Your task to perform on an android device: Go to CNN.com Image 0: 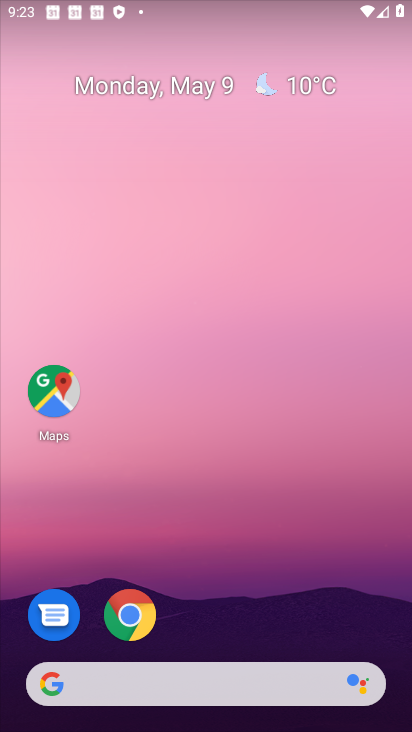
Step 0: click (240, 685)
Your task to perform on an android device: Go to CNN.com Image 1: 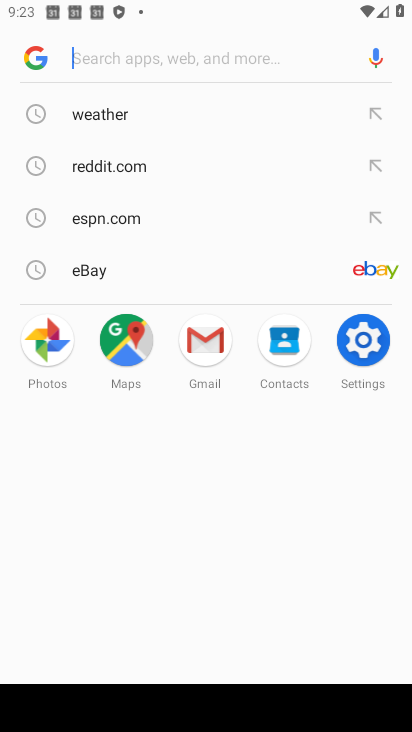
Step 1: type "CNN.com"
Your task to perform on an android device: Go to CNN.com Image 2: 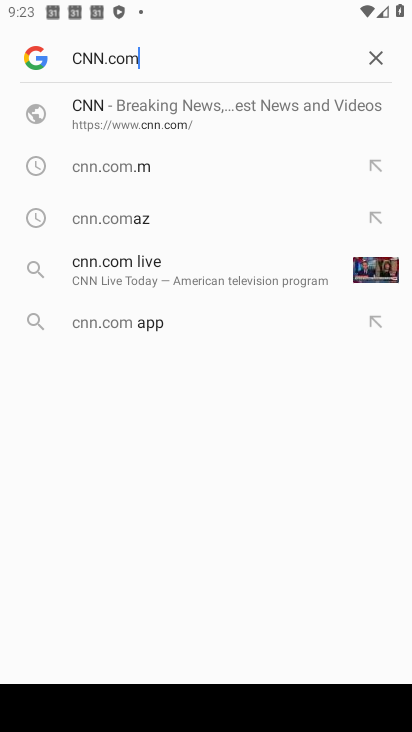
Step 2: click (186, 108)
Your task to perform on an android device: Go to CNN.com Image 3: 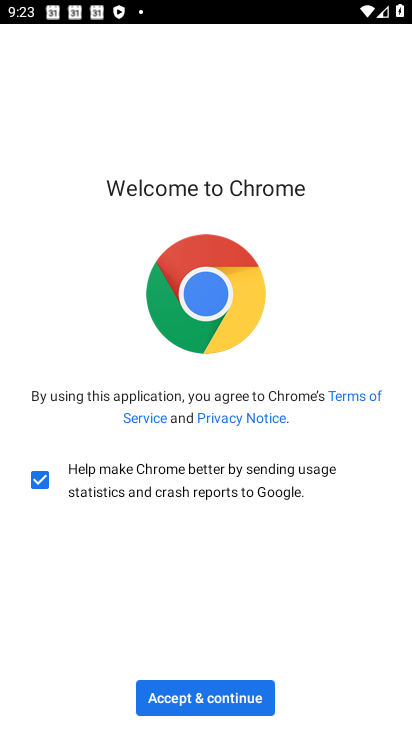
Step 3: click (192, 701)
Your task to perform on an android device: Go to CNN.com Image 4: 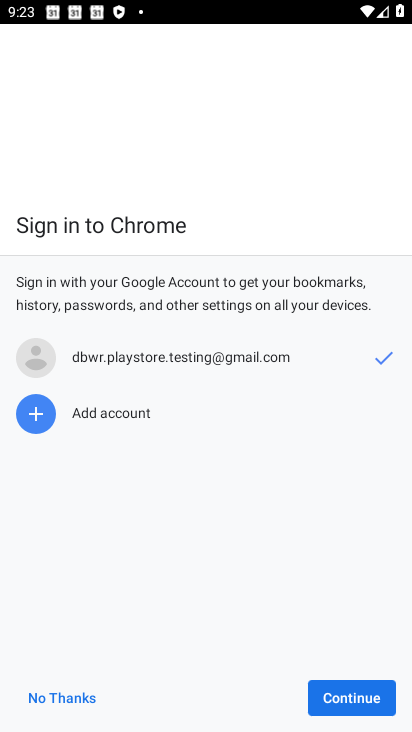
Step 4: click (327, 704)
Your task to perform on an android device: Go to CNN.com Image 5: 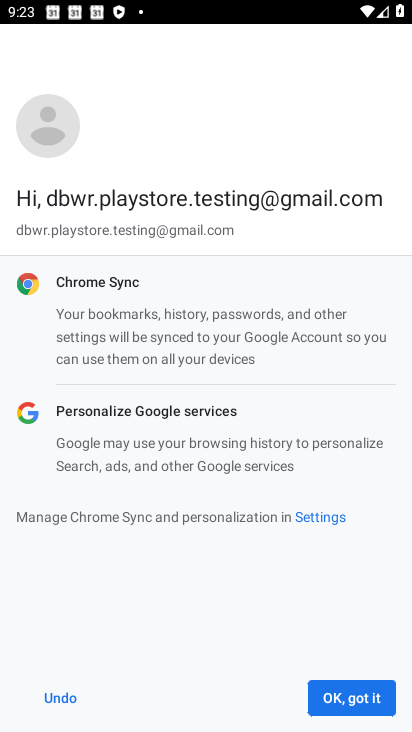
Step 5: click (327, 704)
Your task to perform on an android device: Go to CNN.com Image 6: 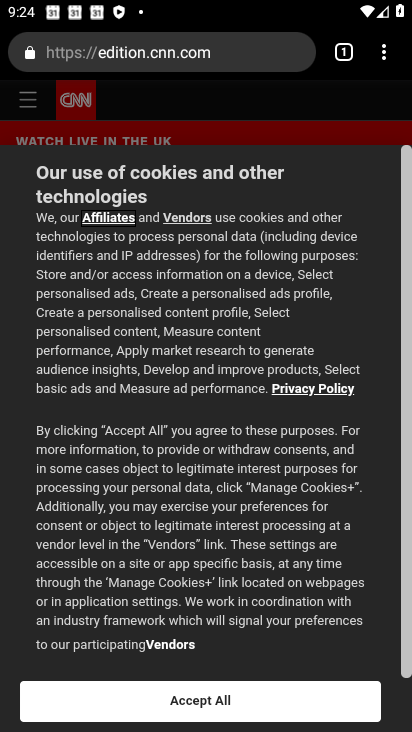
Step 6: task complete